Your task to perform on an android device: toggle translation in the chrome app Image 0: 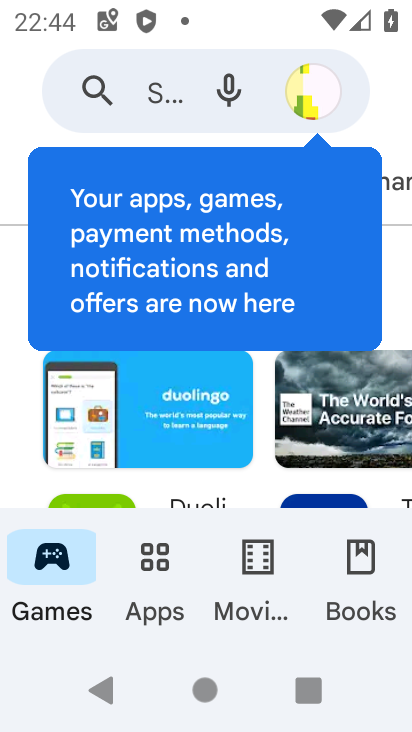
Step 0: press home button
Your task to perform on an android device: toggle translation in the chrome app Image 1: 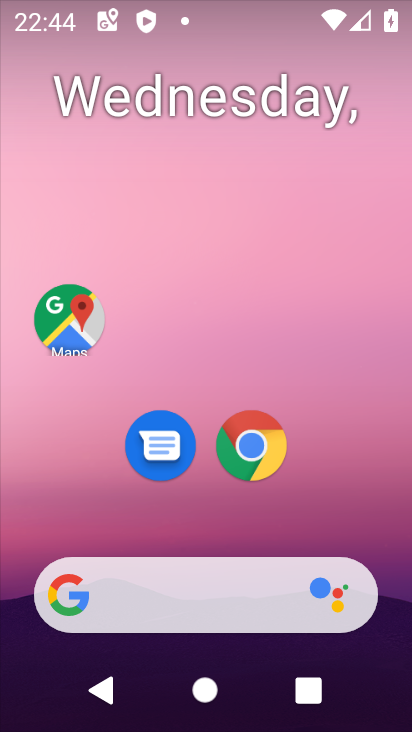
Step 1: click (255, 441)
Your task to perform on an android device: toggle translation in the chrome app Image 2: 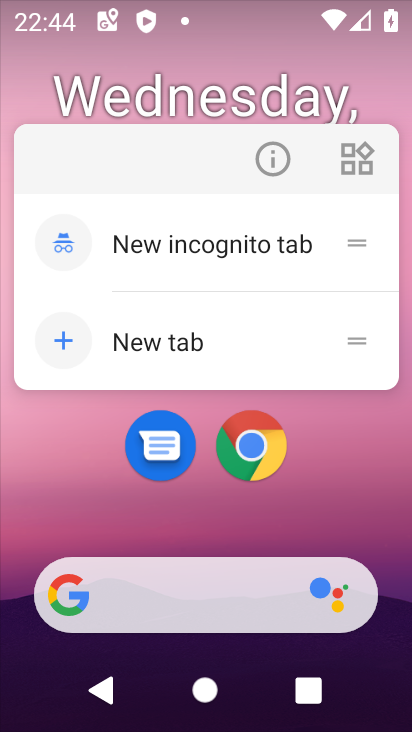
Step 2: click (279, 421)
Your task to perform on an android device: toggle translation in the chrome app Image 3: 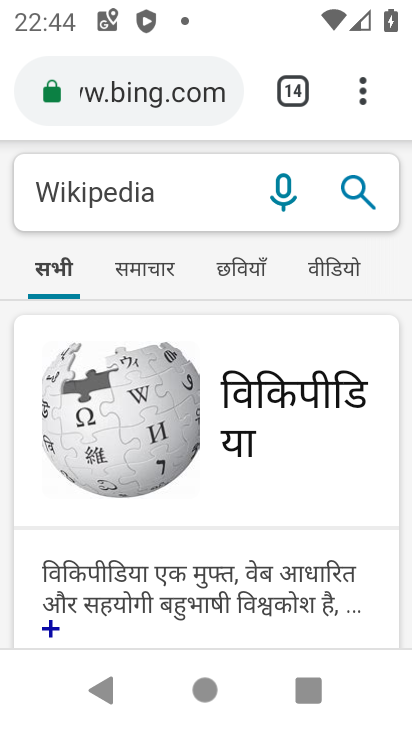
Step 3: click (390, 78)
Your task to perform on an android device: toggle translation in the chrome app Image 4: 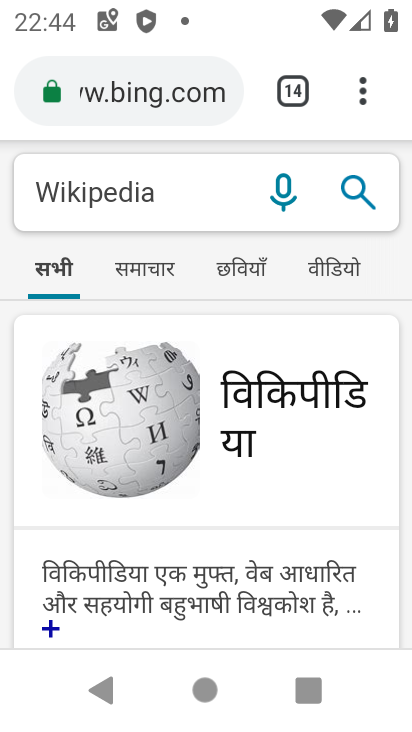
Step 4: click (373, 87)
Your task to perform on an android device: toggle translation in the chrome app Image 5: 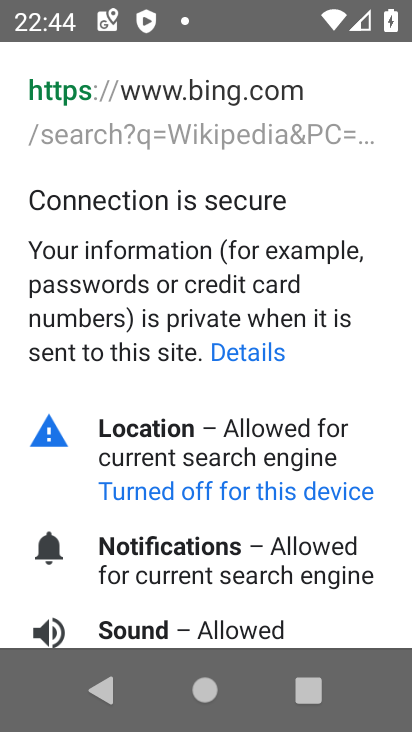
Step 5: press back button
Your task to perform on an android device: toggle translation in the chrome app Image 6: 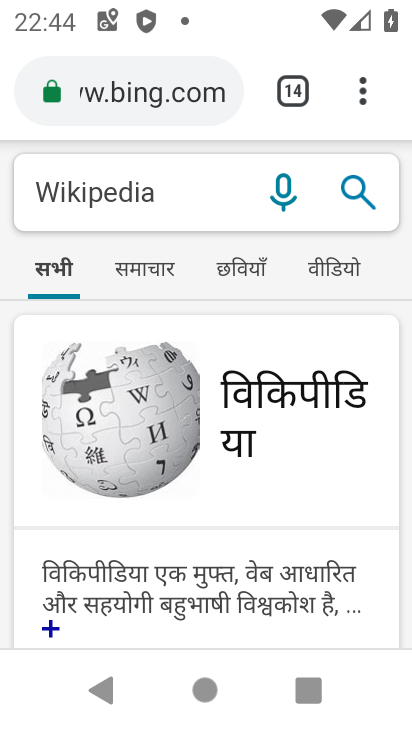
Step 6: click (345, 102)
Your task to perform on an android device: toggle translation in the chrome app Image 7: 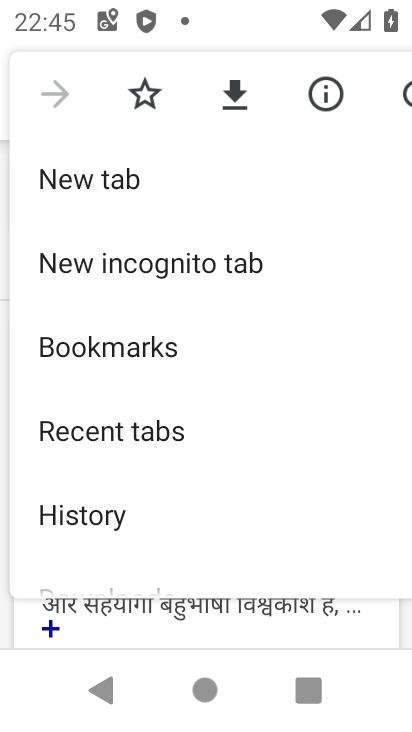
Step 7: drag from (153, 554) to (198, 227)
Your task to perform on an android device: toggle translation in the chrome app Image 8: 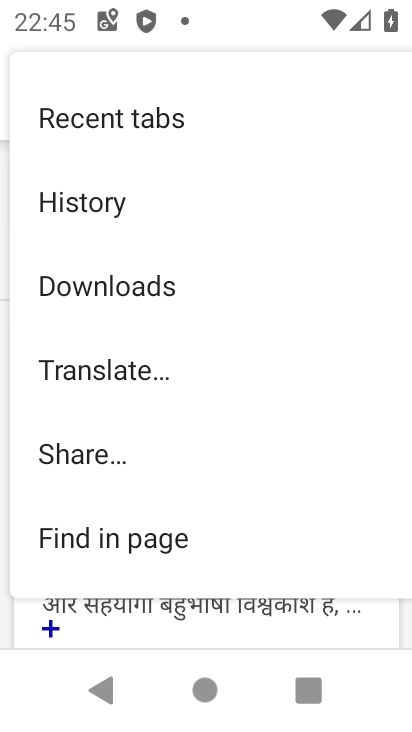
Step 8: drag from (134, 541) to (167, 215)
Your task to perform on an android device: toggle translation in the chrome app Image 9: 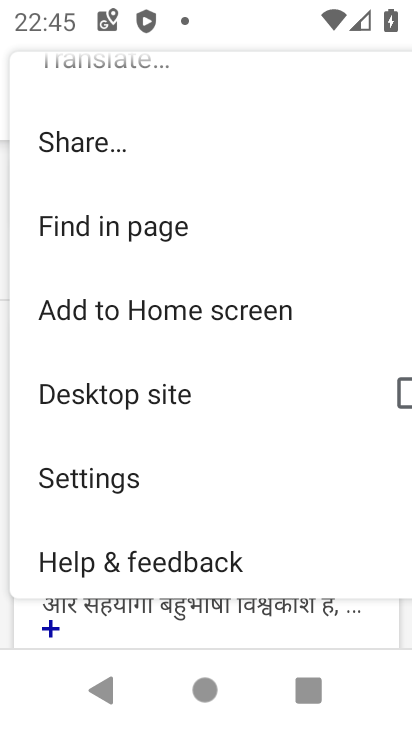
Step 9: click (112, 490)
Your task to perform on an android device: toggle translation in the chrome app Image 10: 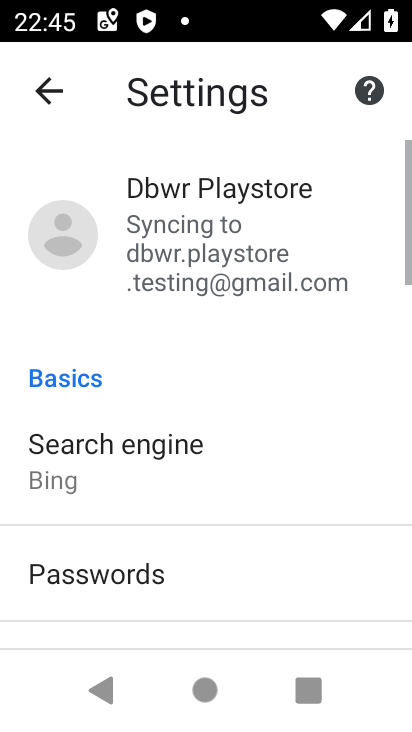
Step 10: drag from (143, 564) to (220, 118)
Your task to perform on an android device: toggle translation in the chrome app Image 11: 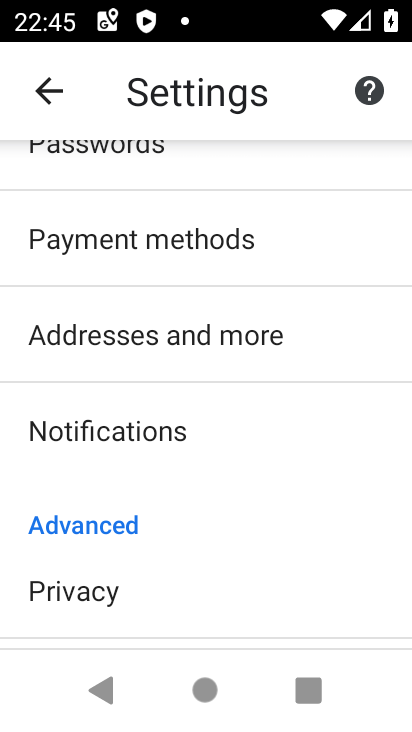
Step 11: drag from (177, 556) to (212, 181)
Your task to perform on an android device: toggle translation in the chrome app Image 12: 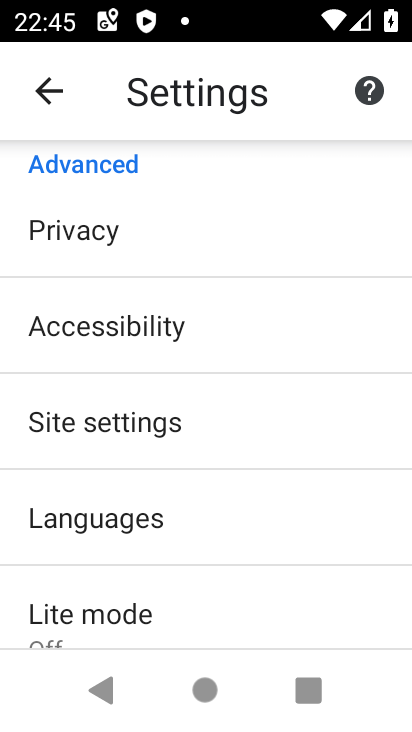
Step 12: click (130, 426)
Your task to perform on an android device: toggle translation in the chrome app Image 13: 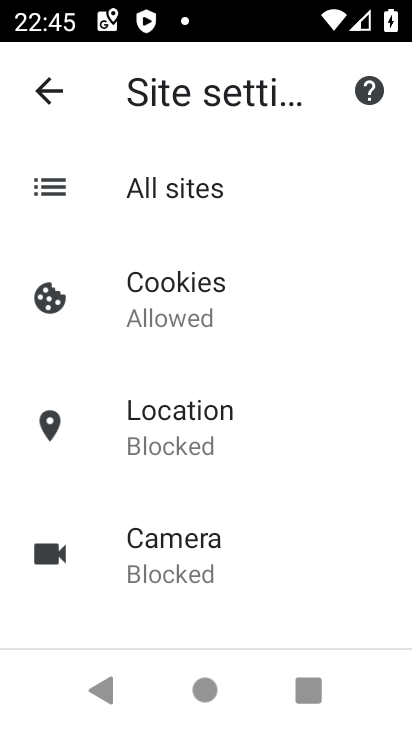
Step 13: click (42, 68)
Your task to perform on an android device: toggle translation in the chrome app Image 14: 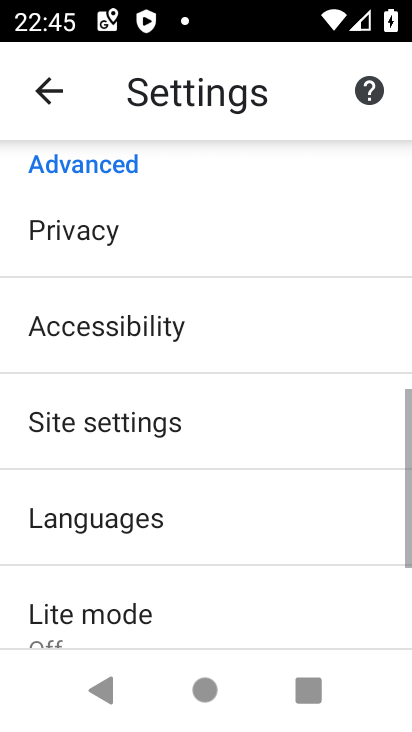
Step 14: drag from (144, 558) to (143, 506)
Your task to perform on an android device: toggle translation in the chrome app Image 15: 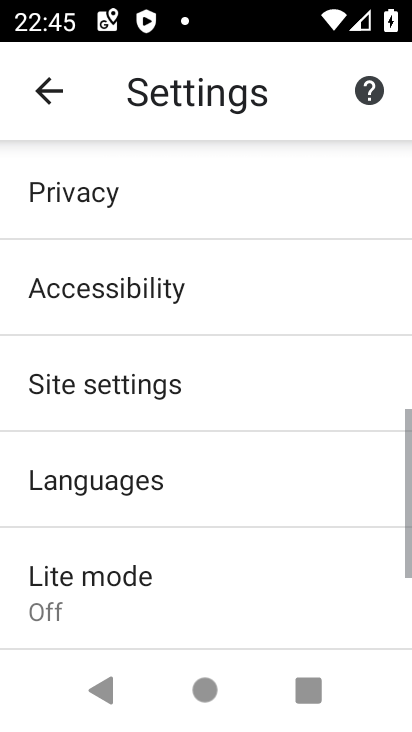
Step 15: click (129, 478)
Your task to perform on an android device: toggle translation in the chrome app Image 16: 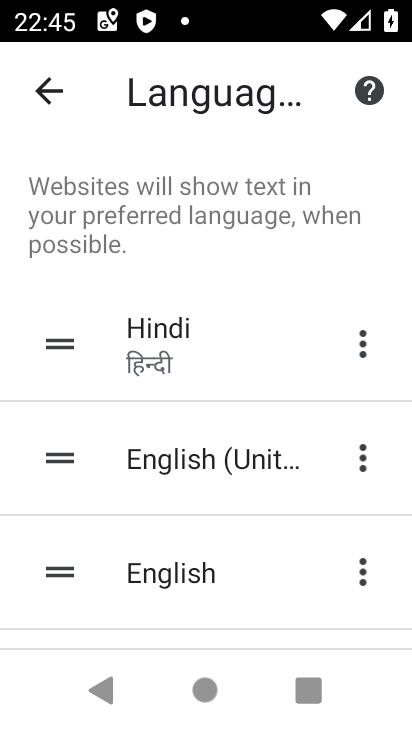
Step 16: drag from (243, 588) to (242, 311)
Your task to perform on an android device: toggle translation in the chrome app Image 17: 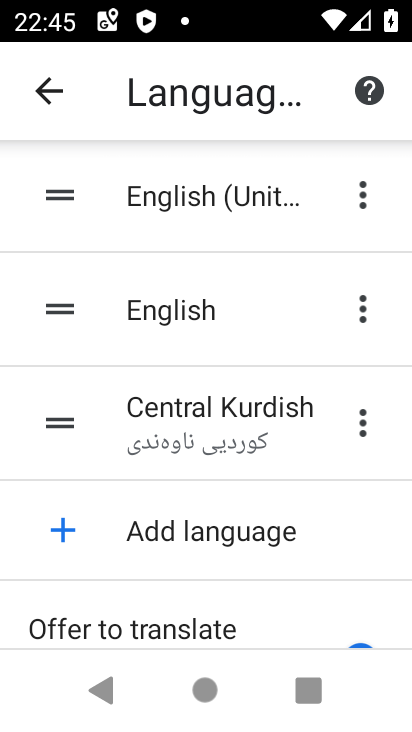
Step 17: drag from (242, 505) to (297, 281)
Your task to perform on an android device: toggle translation in the chrome app Image 18: 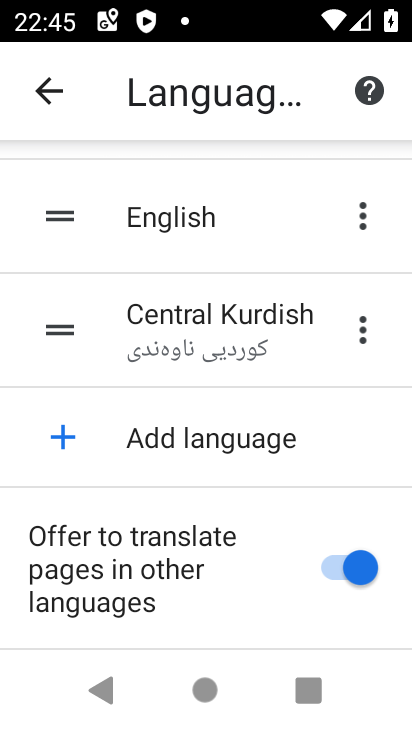
Step 18: click (330, 570)
Your task to perform on an android device: toggle translation in the chrome app Image 19: 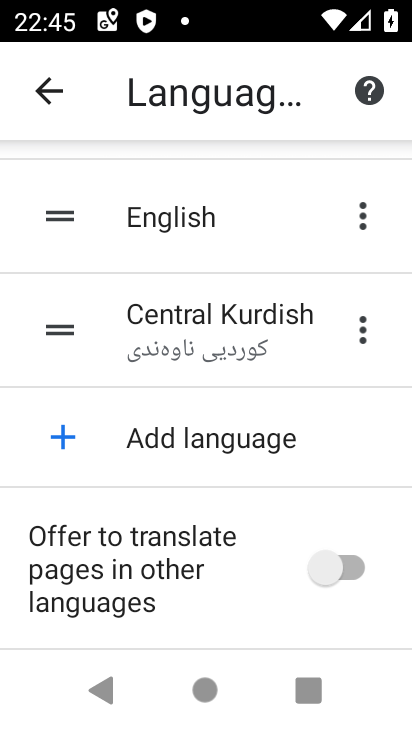
Step 19: task complete